Your task to perform on an android device: move a message to another label in the gmail app Image 0: 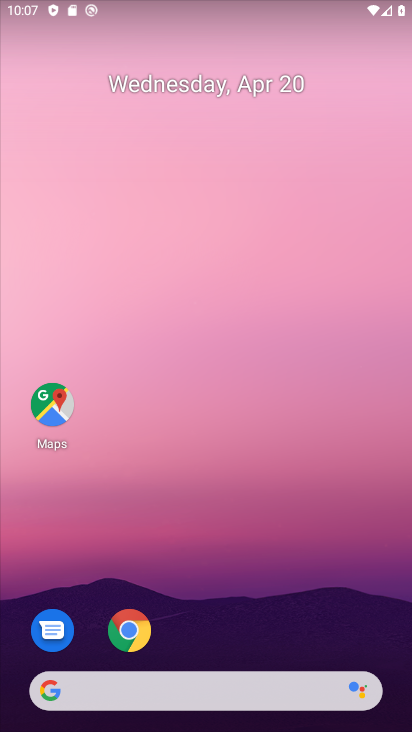
Step 0: drag from (319, 585) to (323, 87)
Your task to perform on an android device: move a message to another label in the gmail app Image 1: 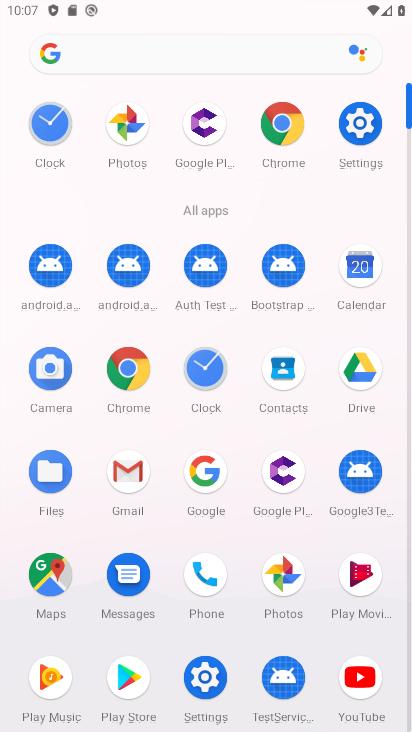
Step 1: click (138, 463)
Your task to perform on an android device: move a message to another label in the gmail app Image 2: 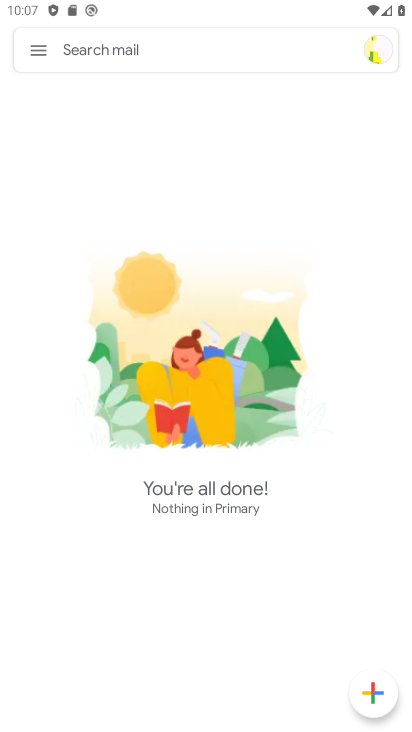
Step 2: click (46, 50)
Your task to perform on an android device: move a message to another label in the gmail app Image 3: 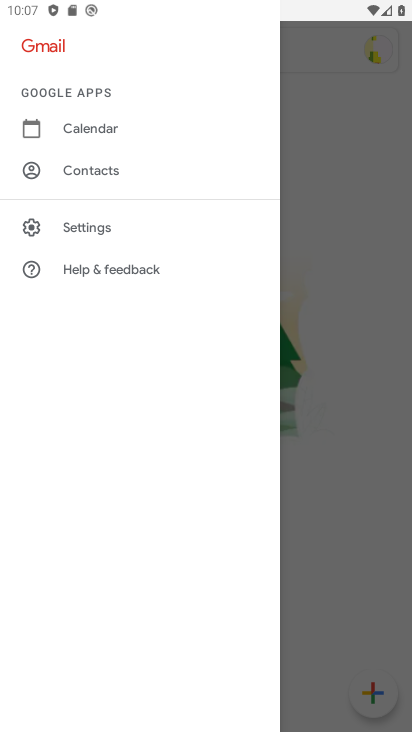
Step 3: click (99, 221)
Your task to perform on an android device: move a message to another label in the gmail app Image 4: 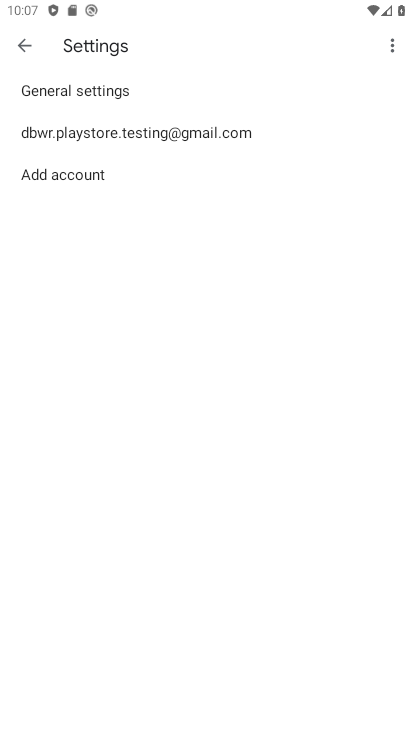
Step 4: click (53, 124)
Your task to perform on an android device: move a message to another label in the gmail app Image 5: 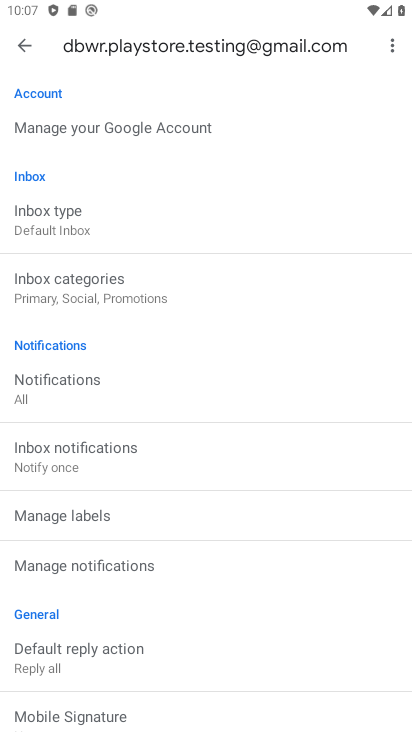
Step 5: click (14, 52)
Your task to perform on an android device: move a message to another label in the gmail app Image 6: 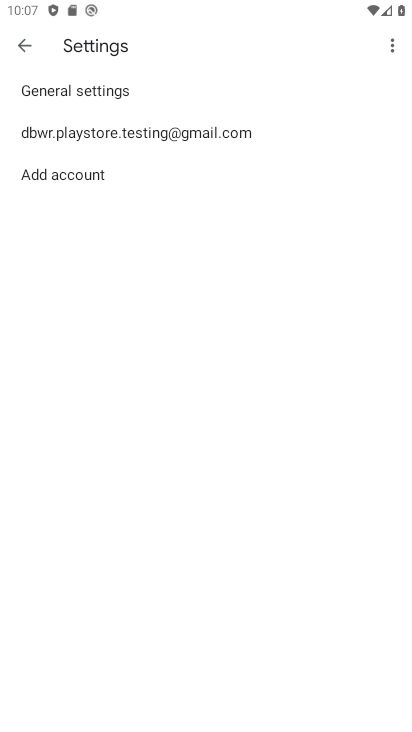
Step 6: click (49, 125)
Your task to perform on an android device: move a message to another label in the gmail app Image 7: 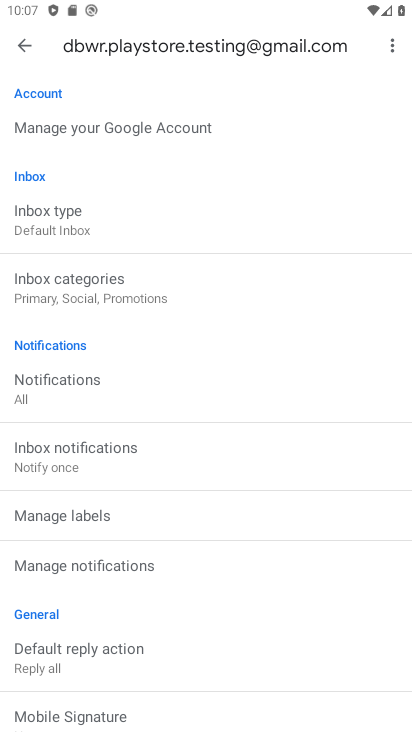
Step 7: click (6, 42)
Your task to perform on an android device: move a message to another label in the gmail app Image 8: 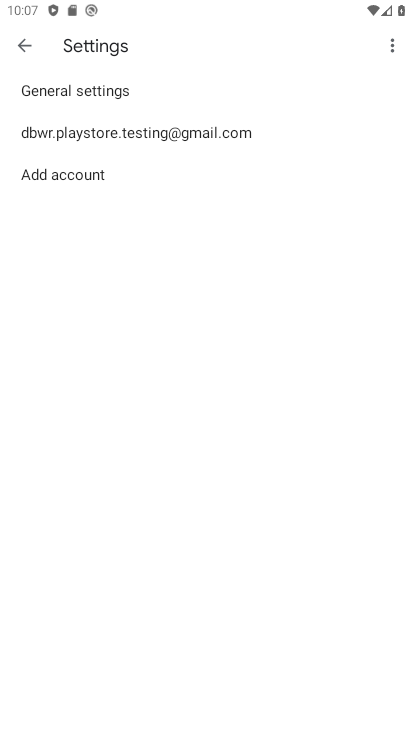
Step 8: click (19, 58)
Your task to perform on an android device: move a message to another label in the gmail app Image 9: 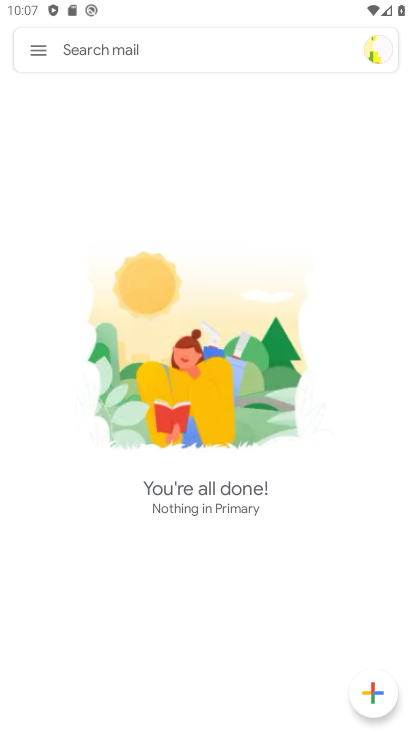
Step 9: click (40, 64)
Your task to perform on an android device: move a message to another label in the gmail app Image 10: 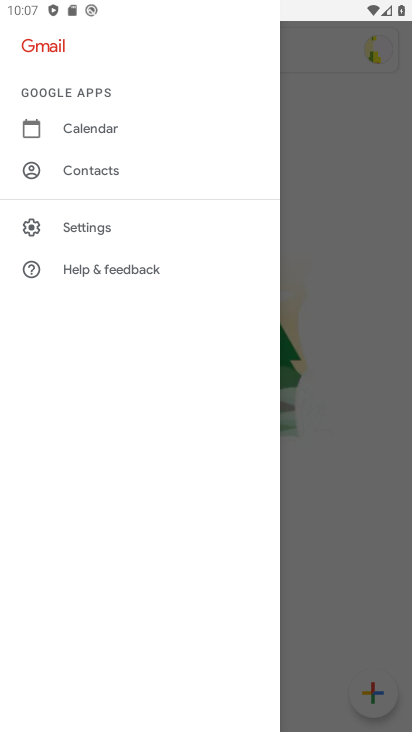
Step 10: task complete